Your task to perform on an android device: Open privacy settings Image 0: 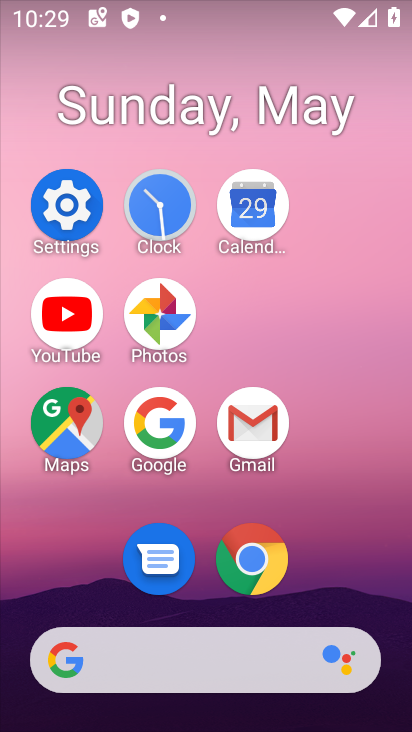
Step 0: click (78, 169)
Your task to perform on an android device: Open privacy settings Image 1: 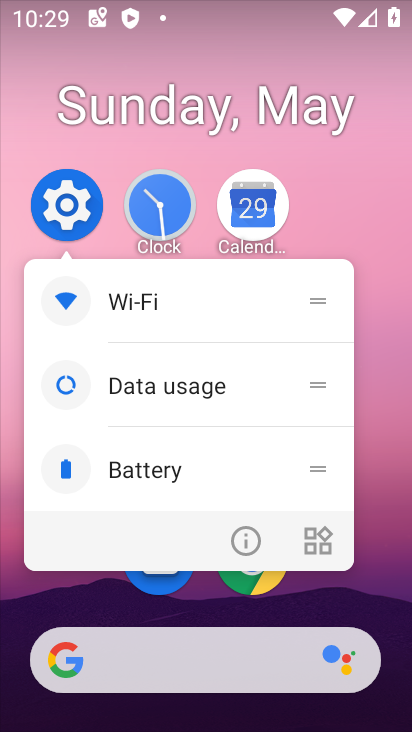
Step 1: click (80, 199)
Your task to perform on an android device: Open privacy settings Image 2: 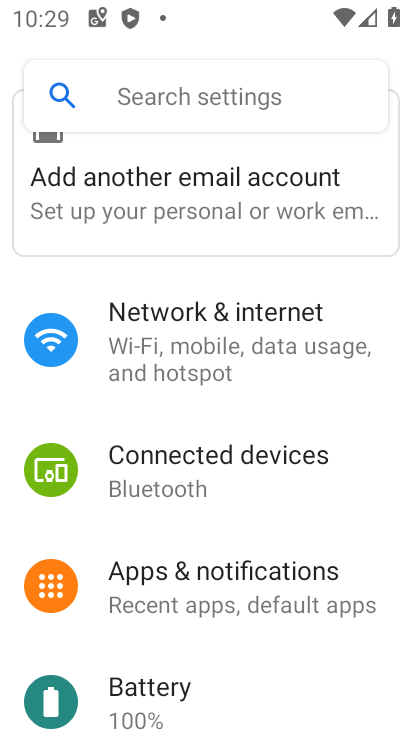
Step 2: drag from (221, 569) to (201, 188)
Your task to perform on an android device: Open privacy settings Image 3: 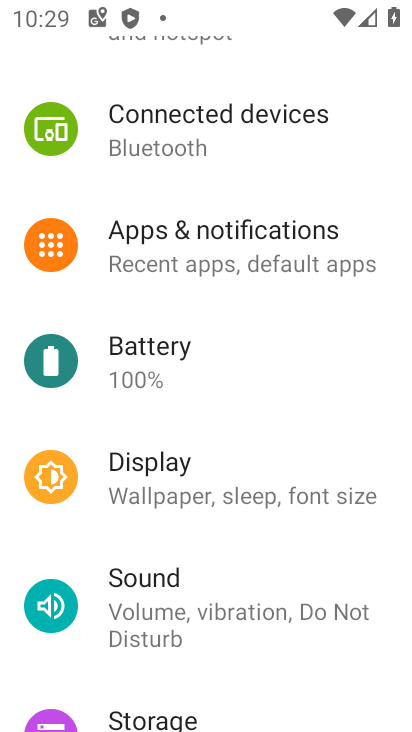
Step 3: drag from (223, 568) to (217, 173)
Your task to perform on an android device: Open privacy settings Image 4: 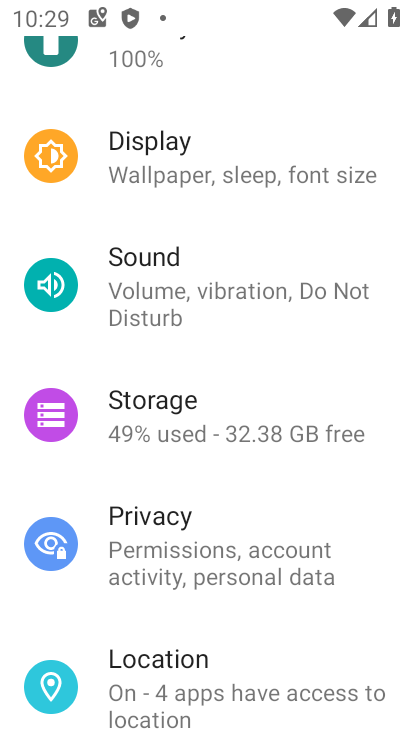
Step 4: click (233, 660)
Your task to perform on an android device: Open privacy settings Image 5: 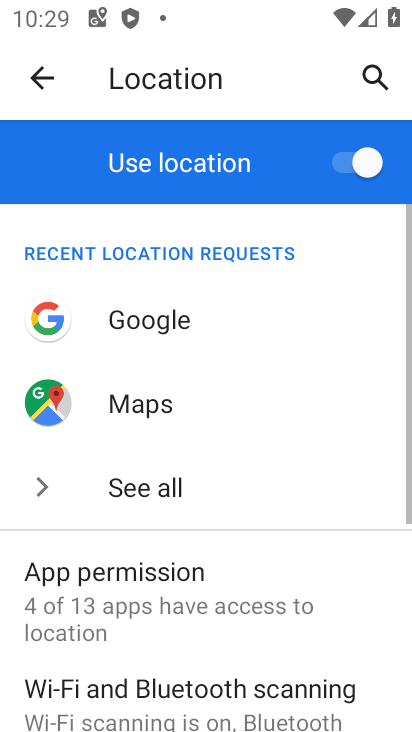
Step 5: task complete